Your task to perform on an android device: Open Google Maps Image 0: 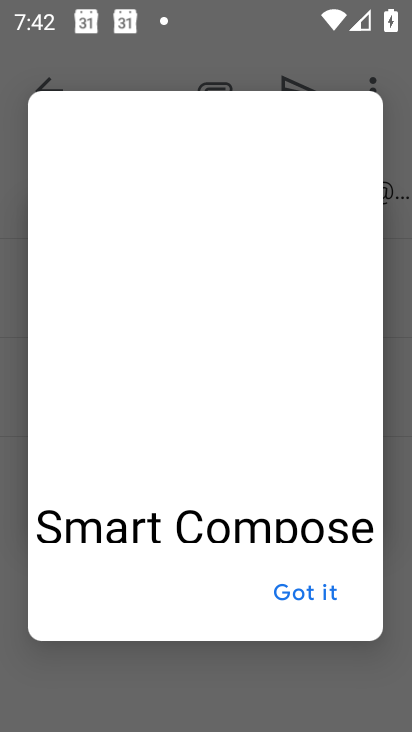
Step 0: press home button
Your task to perform on an android device: Open Google Maps Image 1: 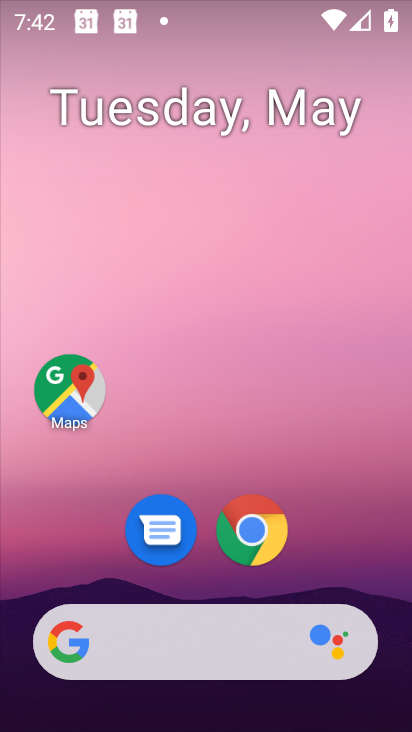
Step 1: click (50, 391)
Your task to perform on an android device: Open Google Maps Image 2: 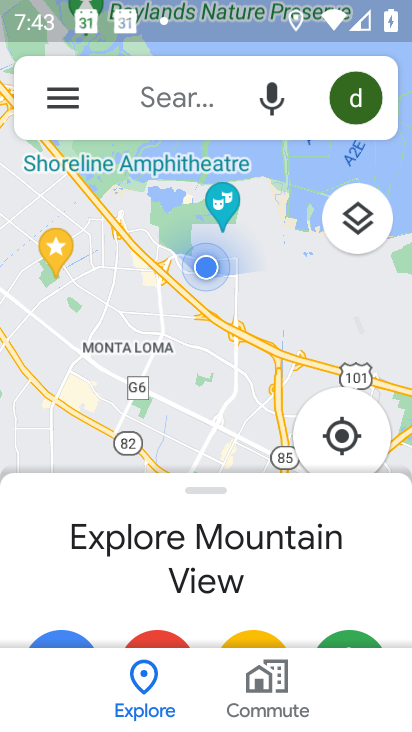
Step 2: task complete